Your task to perform on an android device: Open Google Chrome and click the shortcut for Amazon.com Image 0: 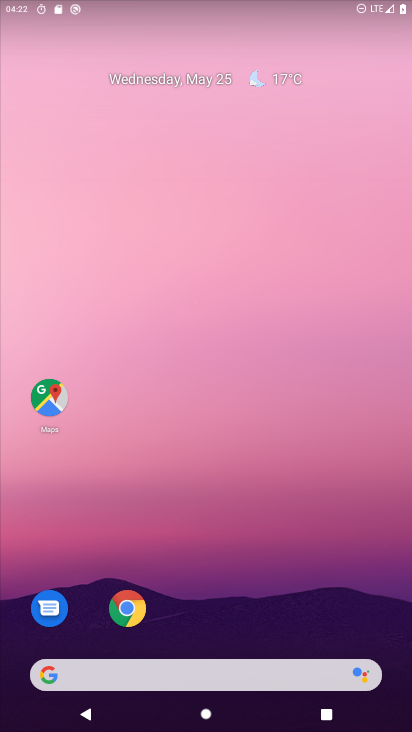
Step 0: drag from (311, 577) to (282, 65)
Your task to perform on an android device: Open Google Chrome and click the shortcut for Amazon.com Image 1: 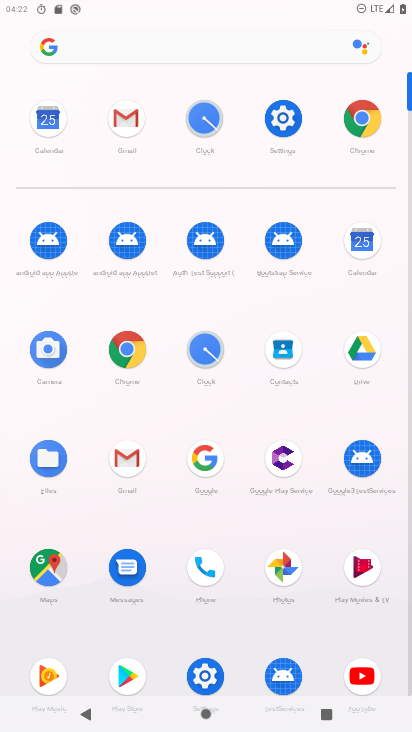
Step 1: click (146, 365)
Your task to perform on an android device: Open Google Chrome and click the shortcut for Amazon.com Image 2: 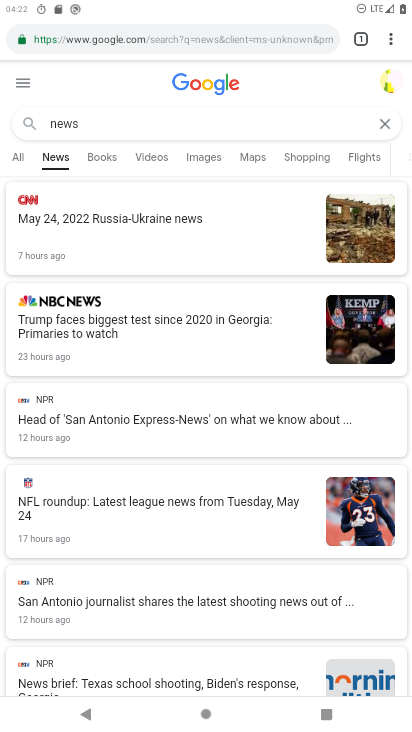
Step 2: drag from (391, 27) to (279, 85)
Your task to perform on an android device: Open Google Chrome and click the shortcut for Amazon.com Image 3: 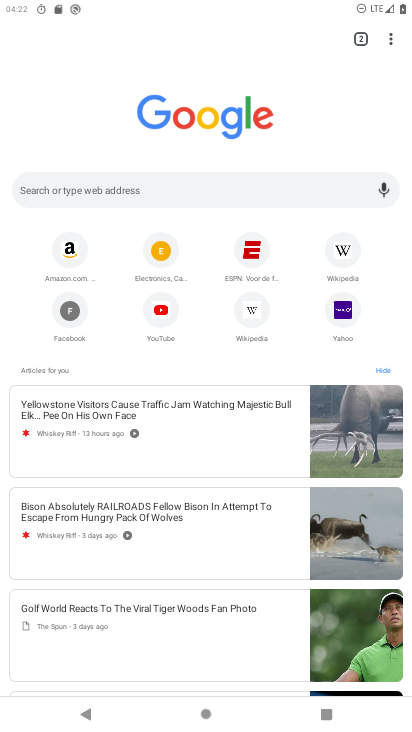
Step 3: click (60, 254)
Your task to perform on an android device: Open Google Chrome and click the shortcut for Amazon.com Image 4: 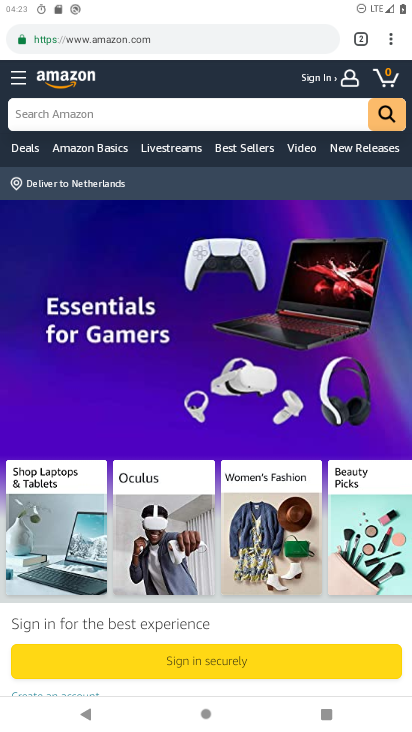
Step 4: task complete